Your task to perform on an android device: Go to display settings Image 0: 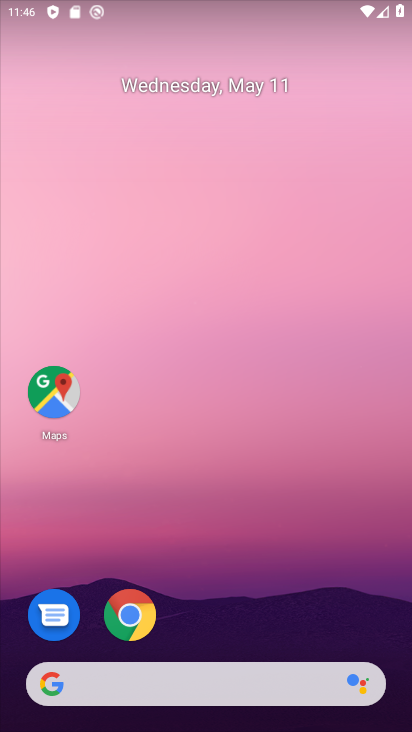
Step 0: drag from (277, 579) to (339, 41)
Your task to perform on an android device: Go to display settings Image 1: 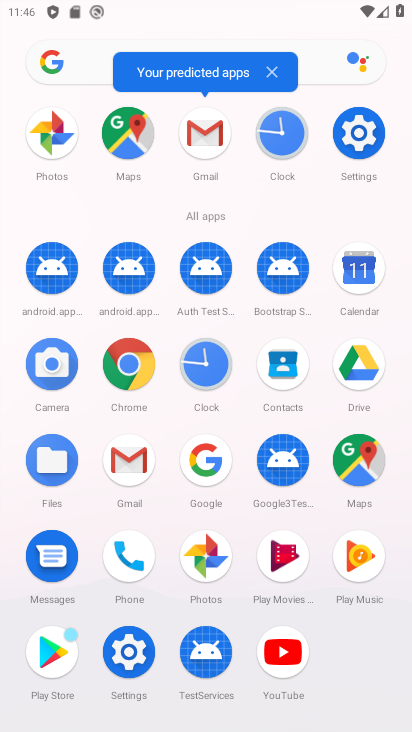
Step 1: click (115, 659)
Your task to perform on an android device: Go to display settings Image 2: 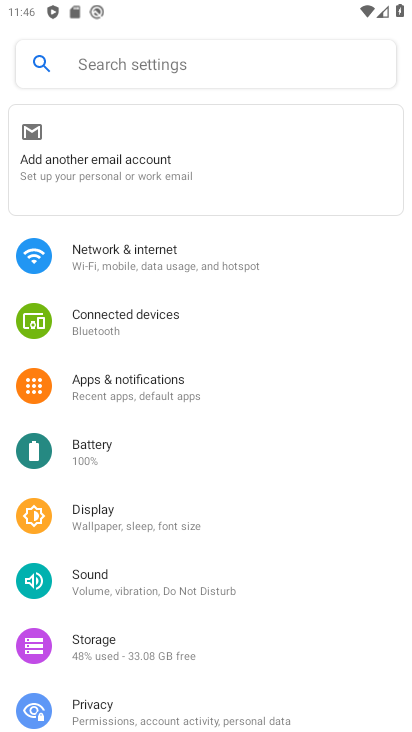
Step 2: click (95, 517)
Your task to perform on an android device: Go to display settings Image 3: 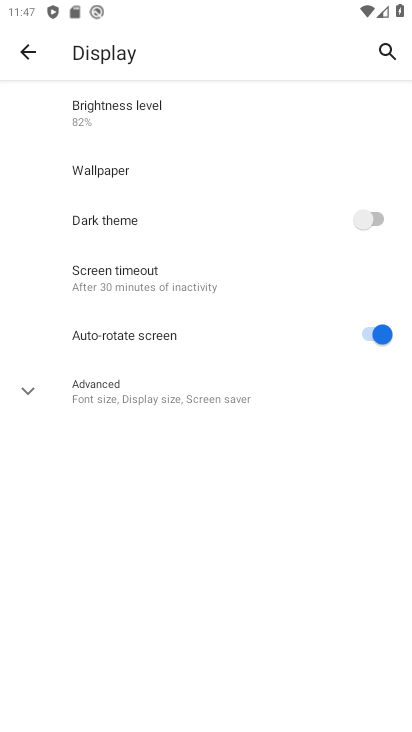
Step 3: task complete